Your task to perform on an android device: Open Chrome and go to settings Image 0: 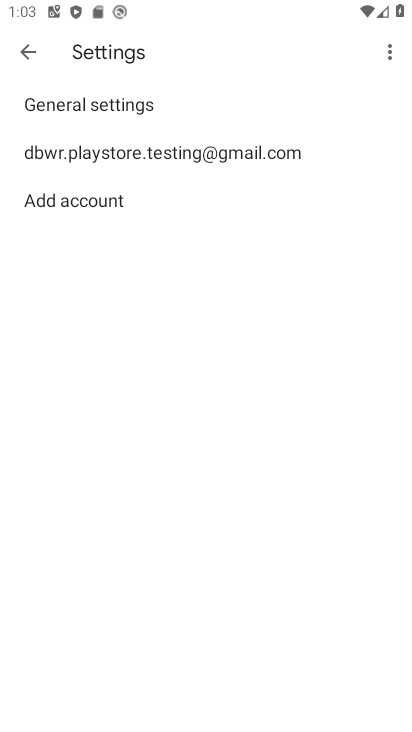
Step 0: task complete